Your task to perform on an android device: Go to network settings Image 0: 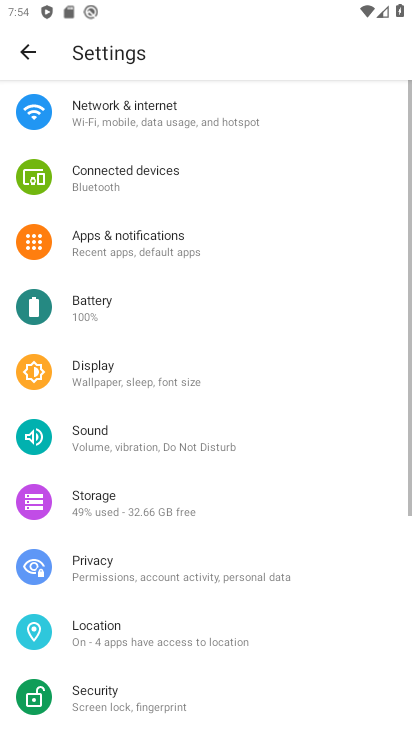
Step 0: drag from (193, 439) to (141, 689)
Your task to perform on an android device: Go to network settings Image 1: 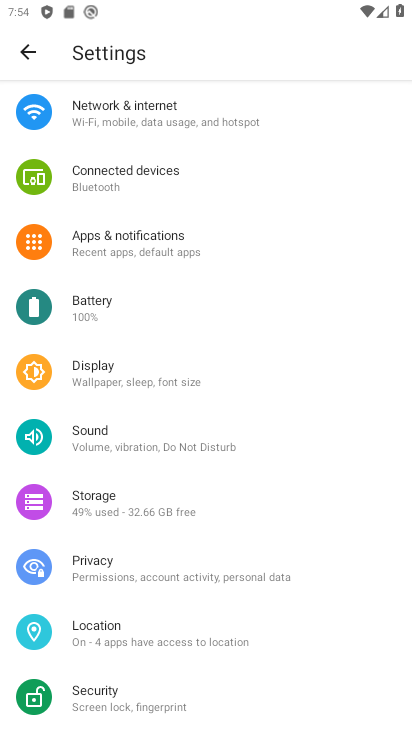
Step 1: click (253, 120)
Your task to perform on an android device: Go to network settings Image 2: 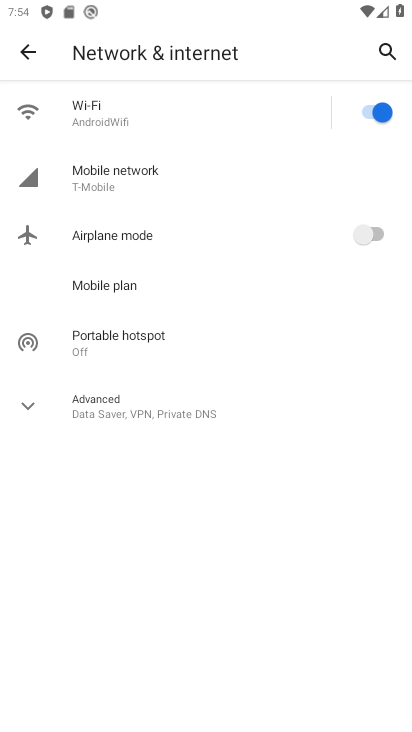
Step 2: click (168, 181)
Your task to perform on an android device: Go to network settings Image 3: 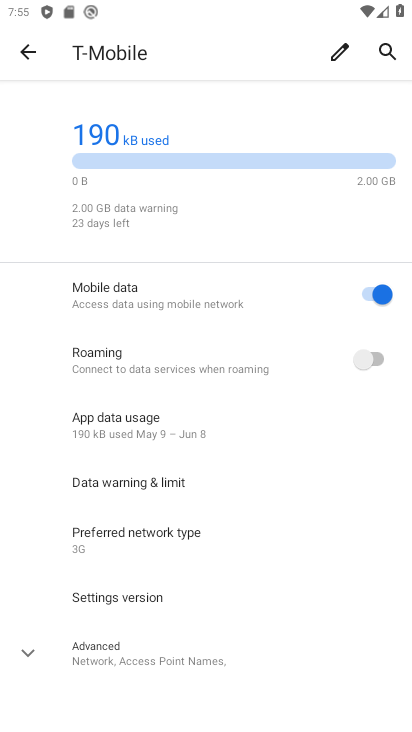
Step 3: task complete